Your task to perform on an android device: open the mobile data screen to see how much data has been used Image 0: 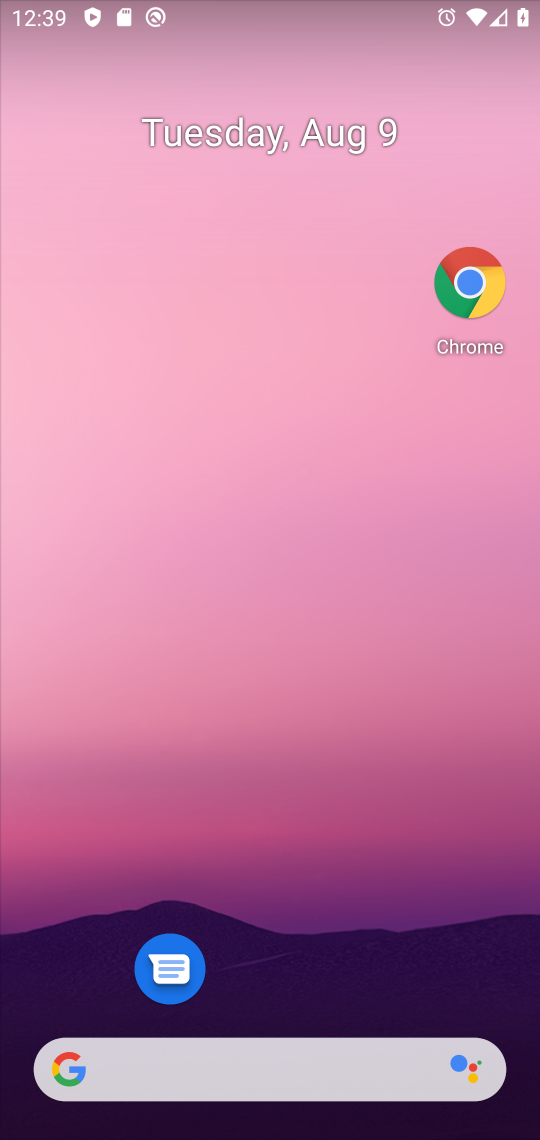
Step 0: drag from (222, 994) to (207, 433)
Your task to perform on an android device: open the mobile data screen to see how much data has been used Image 1: 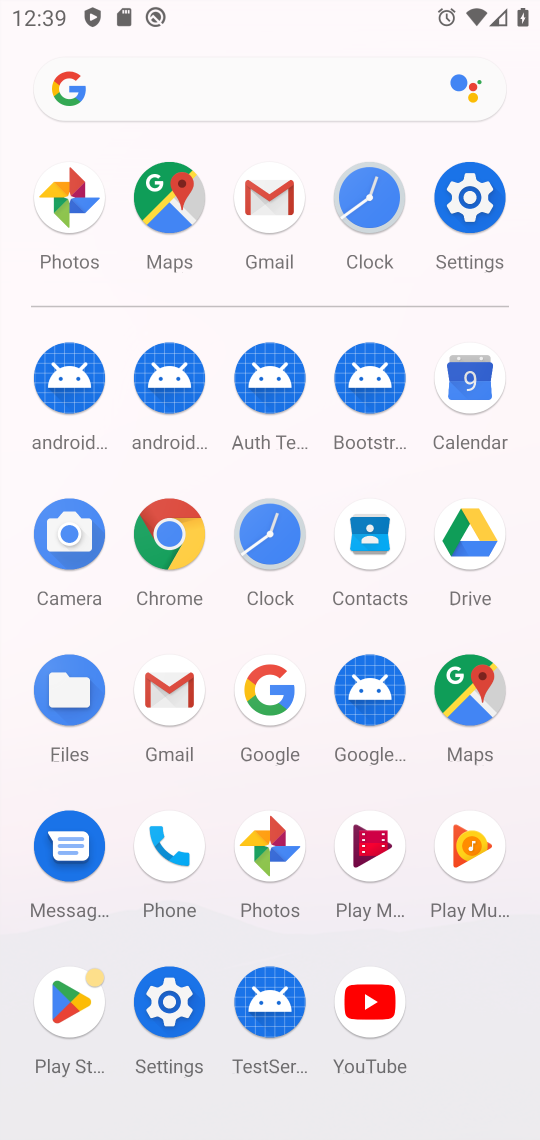
Step 1: click (156, 1010)
Your task to perform on an android device: open the mobile data screen to see how much data has been used Image 2: 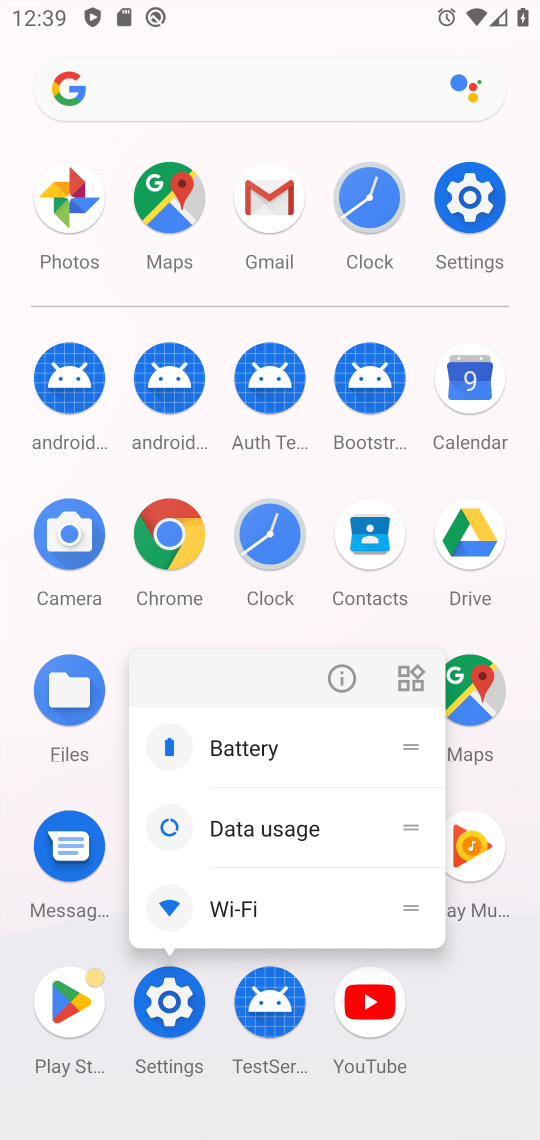
Step 2: click (345, 677)
Your task to perform on an android device: open the mobile data screen to see how much data has been used Image 3: 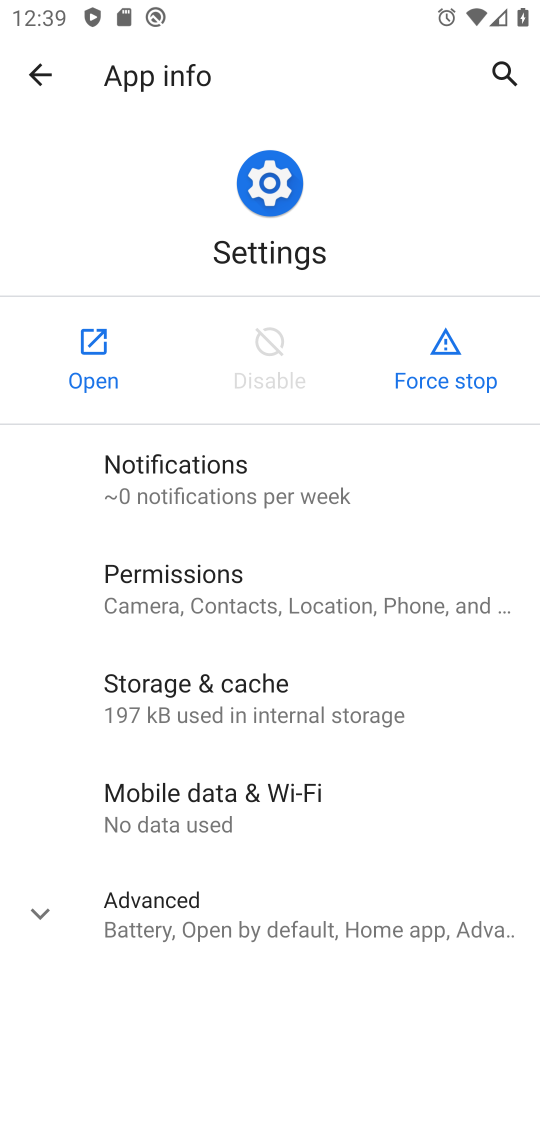
Step 3: click (115, 349)
Your task to perform on an android device: open the mobile data screen to see how much data has been used Image 4: 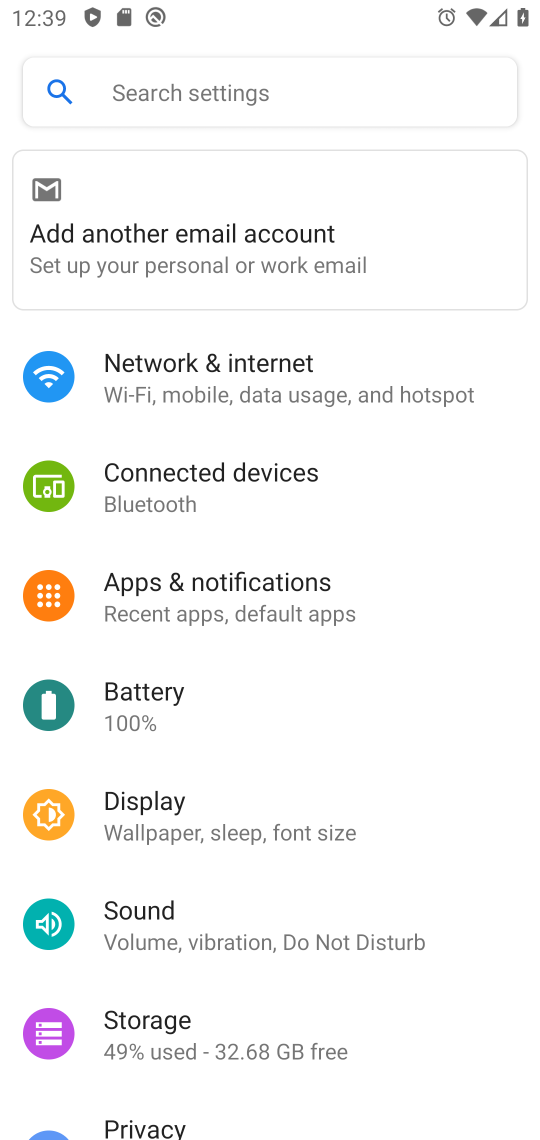
Step 4: click (266, 374)
Your task to perform on an android device: open the mobile data screen to see how much data has been used Image 5: 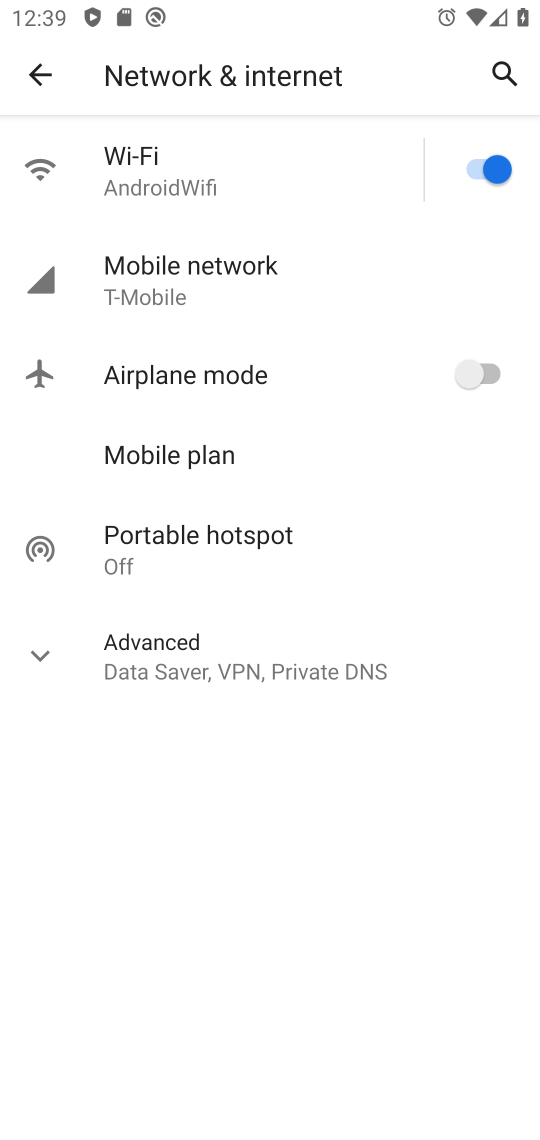
Step 5: click (232, 296)
Your task to perform on an android device: open the mobile data screen to see how much data has been used Image 6: 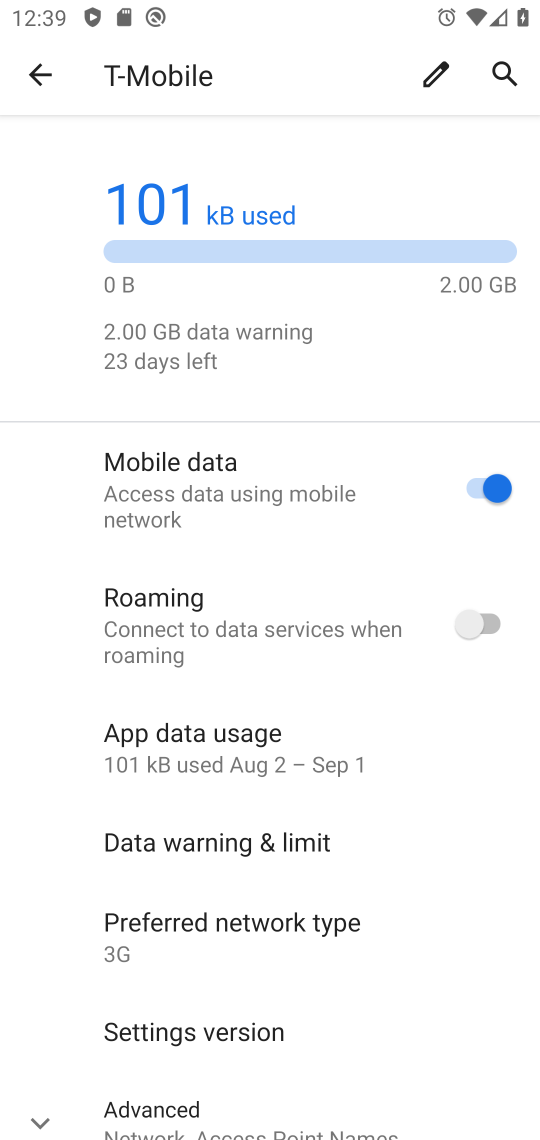
Step 6: task complete